Your task to perform on an android device: turn off picture-in-picture Image 0: 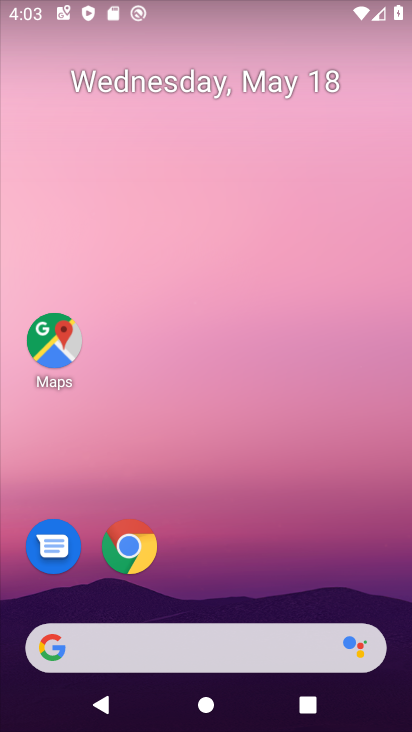
Step 0: click (147, 555)
Your task to perform on an android device: turn off picture-in-picture Image 1: 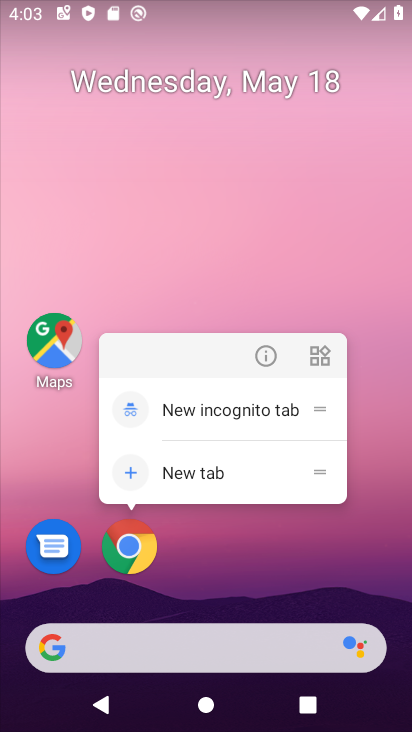
Step 1: click (261, 349)
Your task to perform on an android device: turn off picture-in-picture Image 2: 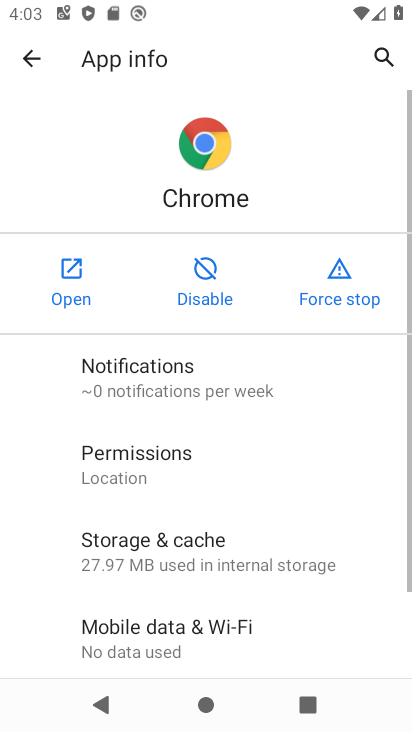
Step 2: drag from (223, 537) to (292, 125)
Your task to perform on an android device: turn off picture-in-picture Image 3: 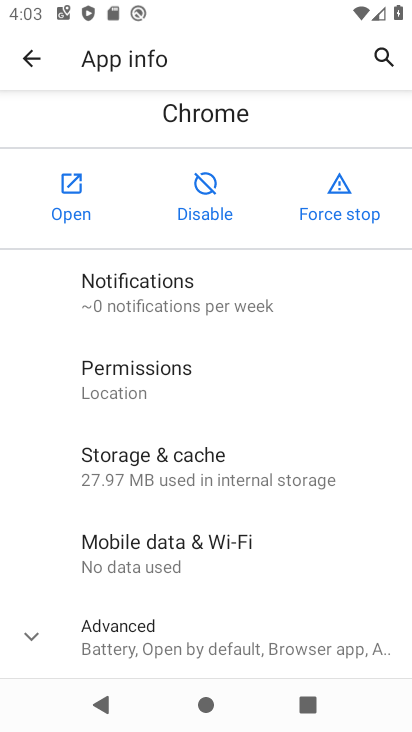
Step 3: click (121, 641)
Your task to perform on an android device: turn off picture-in-picture Image 4: 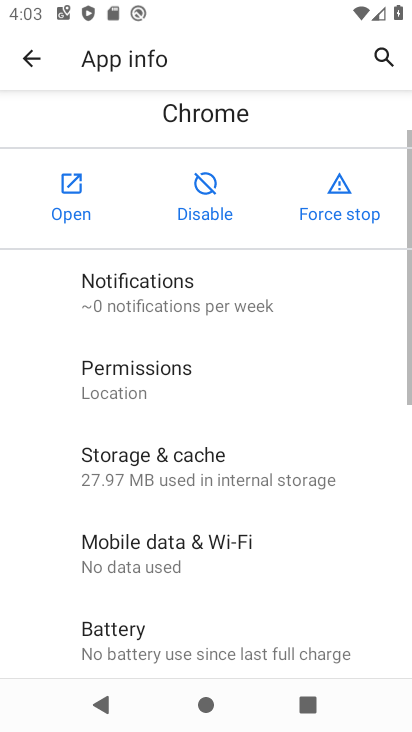
Step 4: drag from (140, 637) to (243, 199)
Your task to perform on an android device: turn off picture-in-picture Image 5: 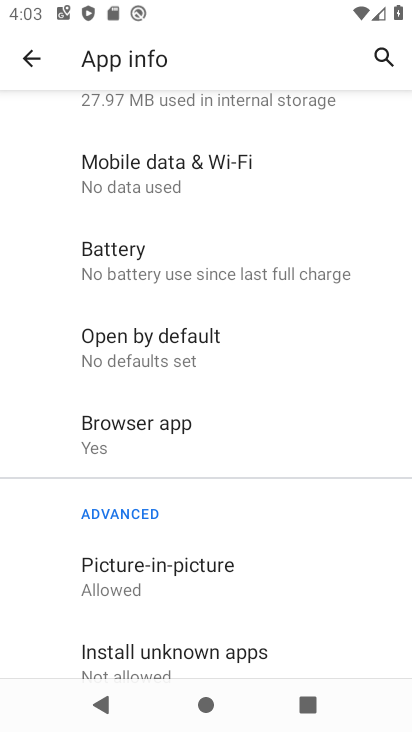
Step 5: click (167, 582)
Your task to perform on an android device: turn off picture-in-picture Image 6: 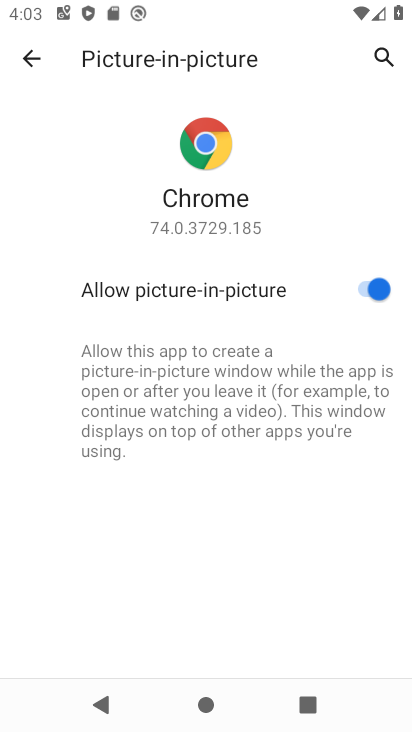
Step 6: click (346, 293)
Your task to perform on an android device: turn off picture-in-picture Image 7: 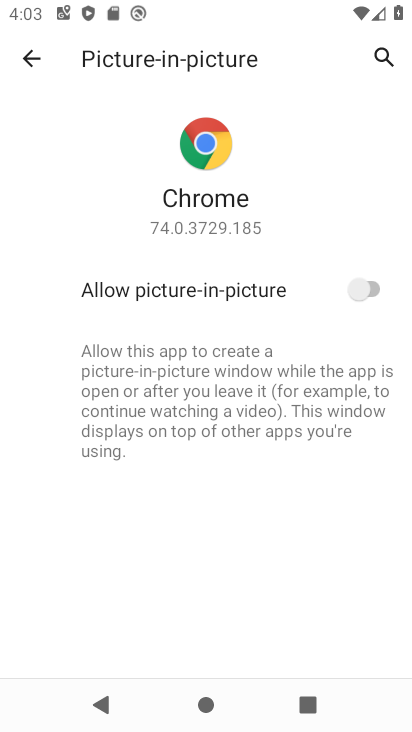
Step 7: task complete